Your task to perform on an android device: Go to settings Image 0: 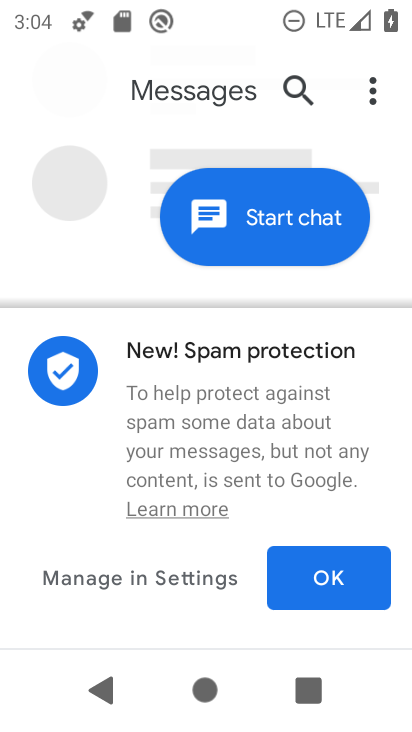
Step 0: press home button
Your task to perform on an android device: Go to settings Image 1: 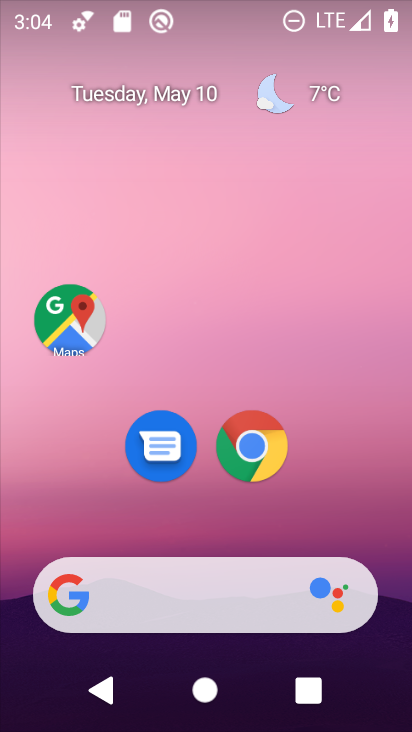
Step 1: drag from (280, 479) to (248, 62)
Your task to perform on an android device: Go to settings Image 2: 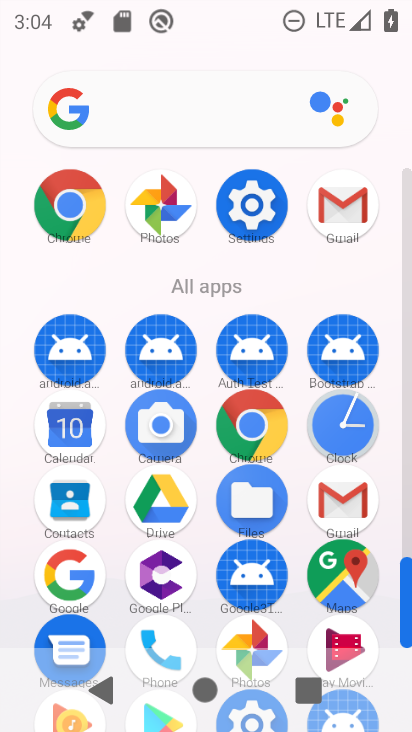
Step 2: click (258, 209)
Your task to perform on an android device: Go to settings Image 3: 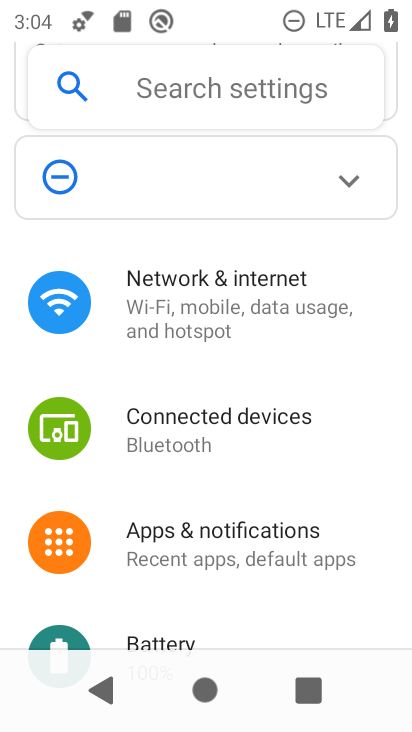
Step 3: task complete